Your task to perform on an android device: check battery use Image 0: 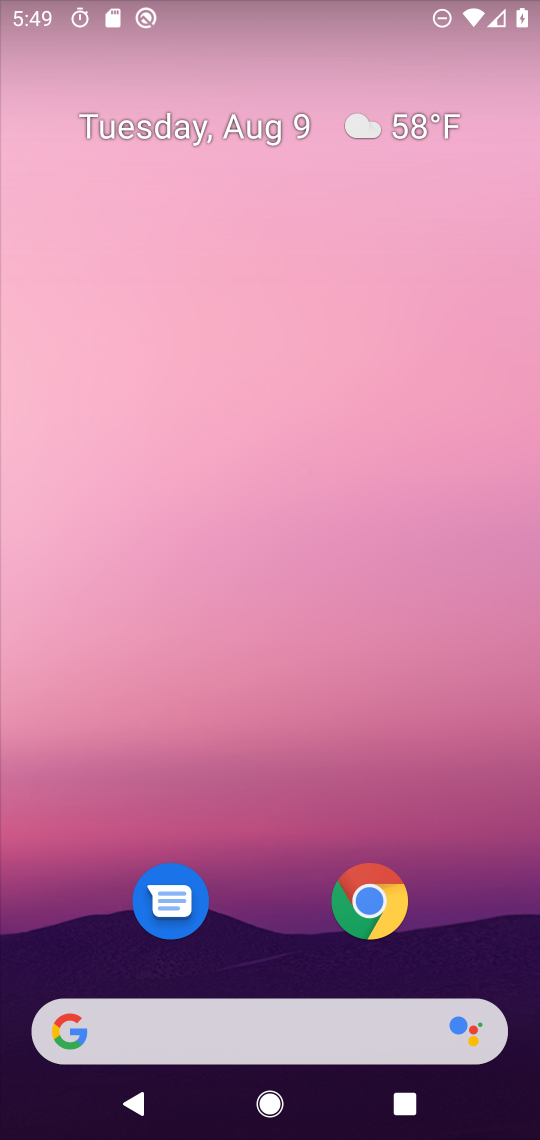
Step 0: drag from (222, 926) to (327, 64)
Your task to perform on an android device: check battery use Image 1: 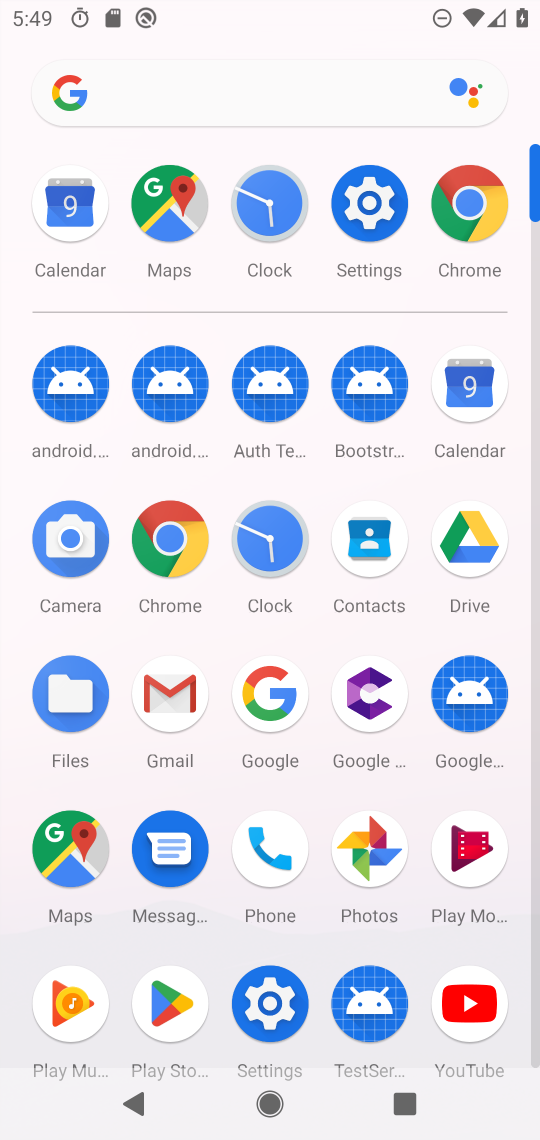
Step 1: click (383, 185)
Your task to perform on an android device: check battery use Image 2: 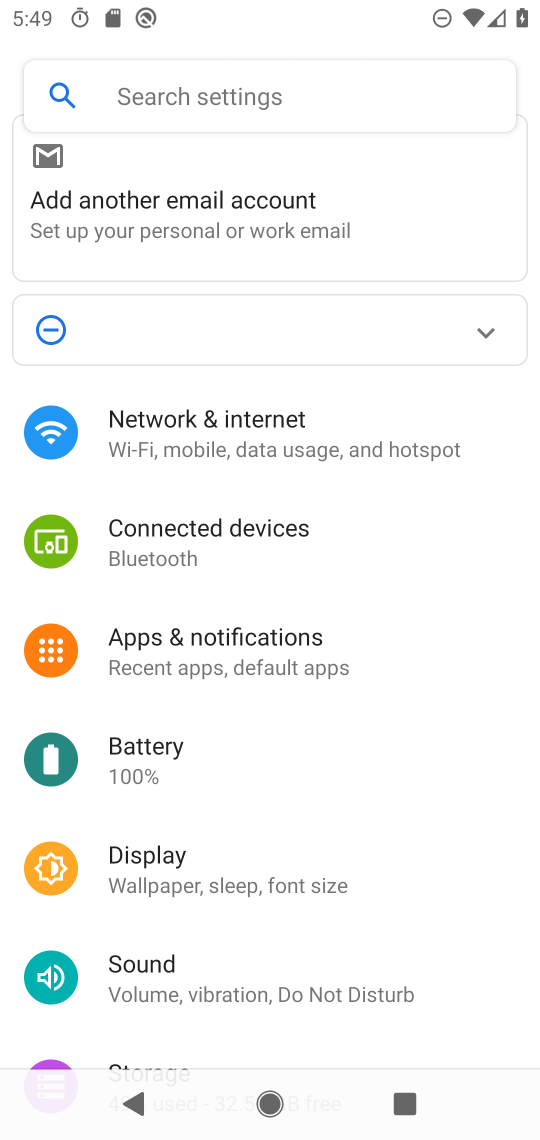
Step 2: click (156, 754)
Your task to perform on an android device: check battery use Image 3: 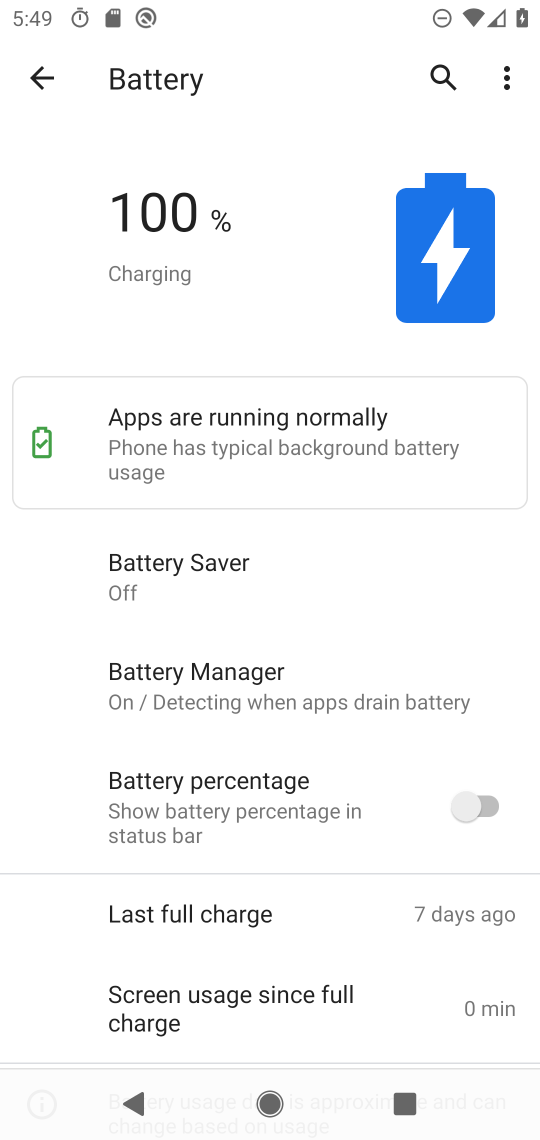
Step 3: task complete